Your task to perform on an android device: manage bookmarks in the chrome app Image 0: 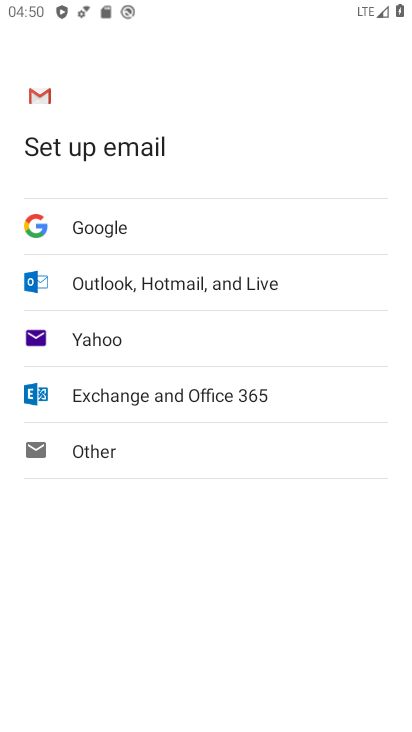
Step 0: press back button
Your task to perform on an android device: manage bookmarks in the chrome app Image 1: 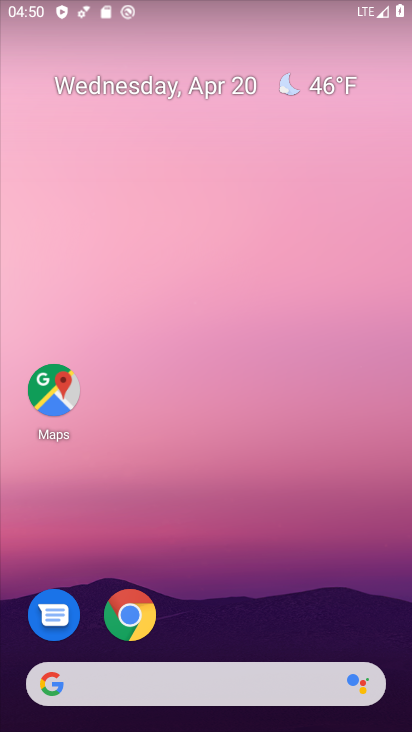
Step 1: click (123, 609)
Your task to perform on an android device: manage bookmarks in the chrome app Image 2: 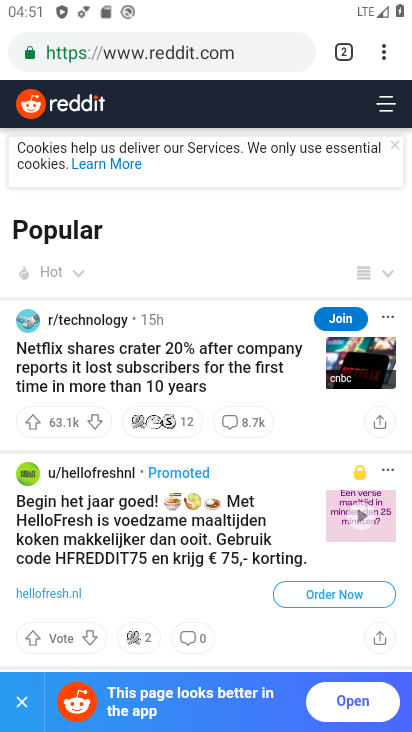
Step 2: click (380, 50)
Your task to perform on an android device: manage bookmarks in the chrome app Image 3: 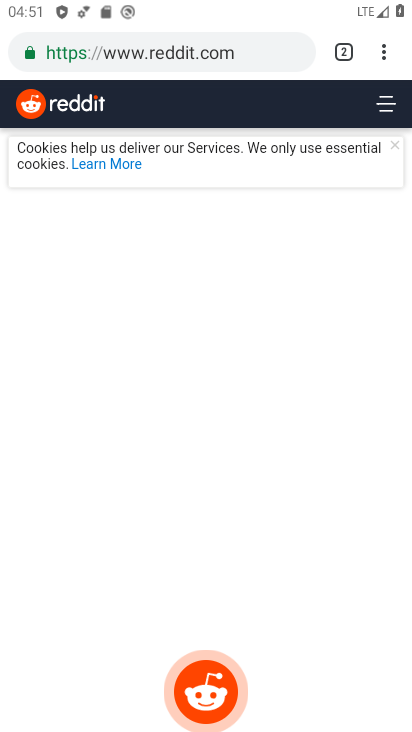
Step 3: drag from (380, 48) to (239, 258)
Your task to perform on an android device: manage bookmarks in the chrome app Image 4: 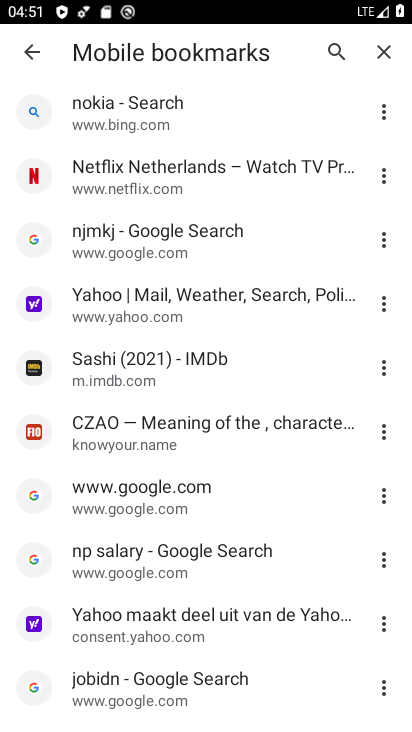
Step 4: click (378, 176)
Your task to perform on an android device: manage bookmarks in the chrome app Image 5: 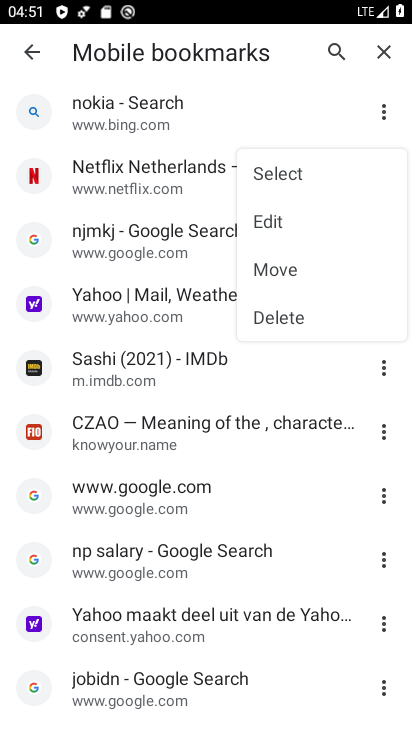
Step 5: click (304, 313)
Your task to perform on an android device: manage bookmarks in the chrome app Image 6: 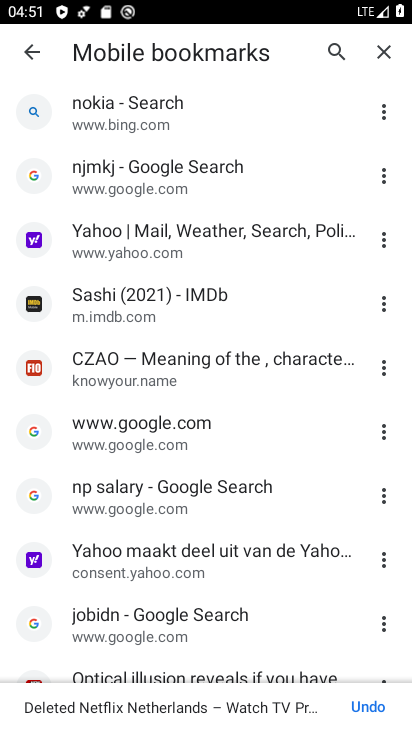
Step 6: task complete